Your task to perform on an android device: change your default location settings in chrome Image 0: 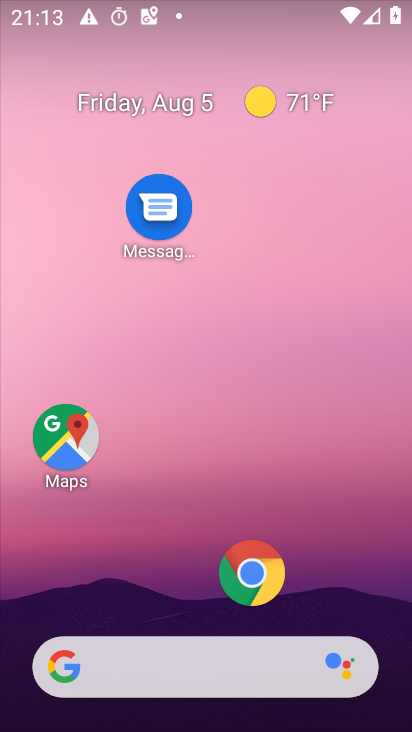
Step 0: press home button
Your task to perform on an android device: change your default location settings in chrome Image 1: 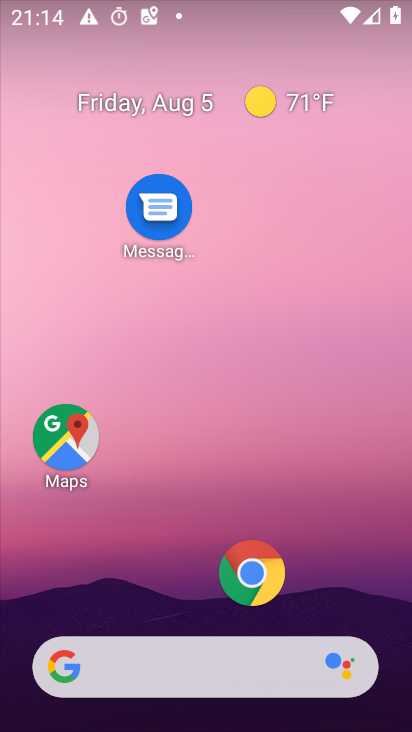
Step 1: click (248, 565)
Your task to perform on an android device: change your default location settings in chrome Image 2: 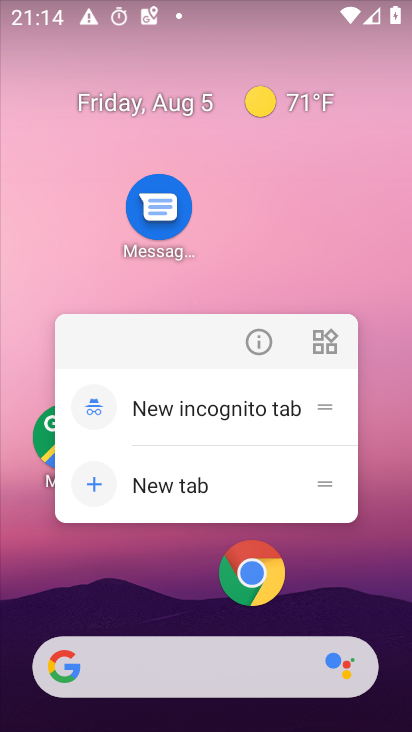
Step 2: click (248, 565)
Your task to perform on an android device: change your default location settings in chrome Image 3: 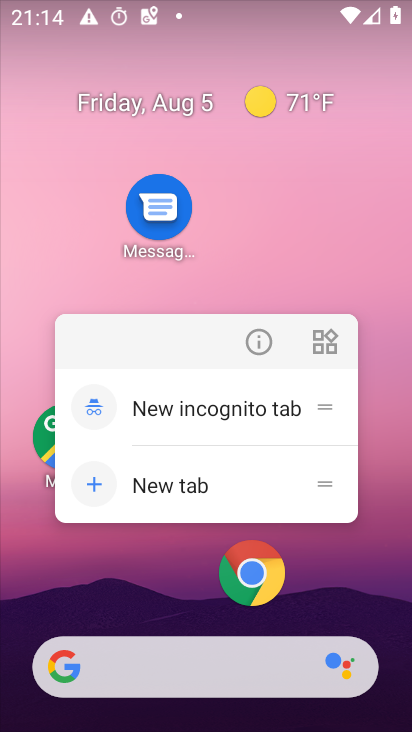
Step 3: click (358, 577)
Your task to perform on an android device: change your default location settings in chrome Image 4: 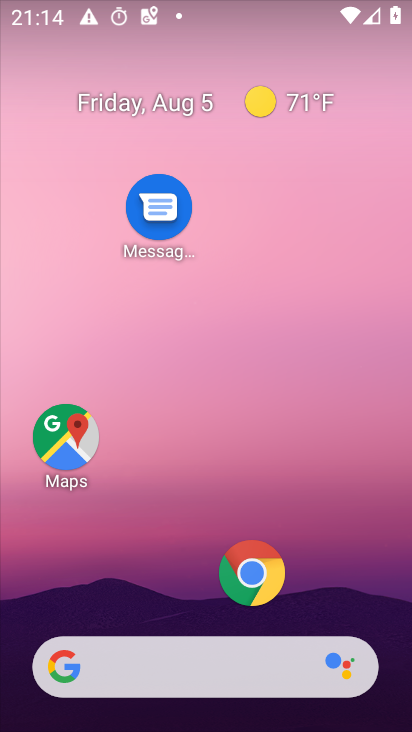
Step 4: click (245, 562)
Your task to perform on an android device: change your default location settings in chrome Image 5: 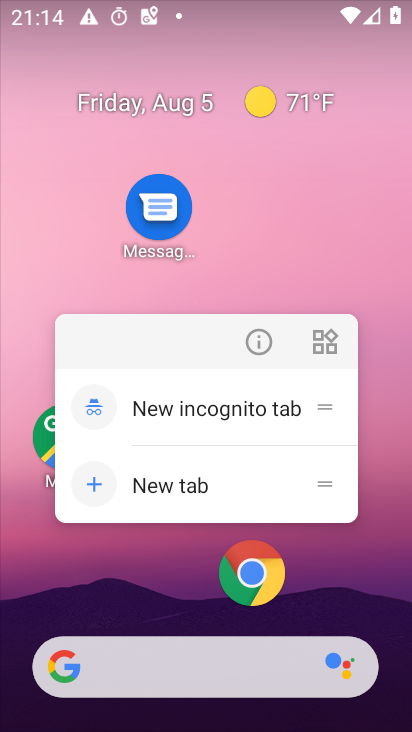
Step 5: click (249, 565)
Your task to perform on an android device: change your default location settings in chrome Image 6: 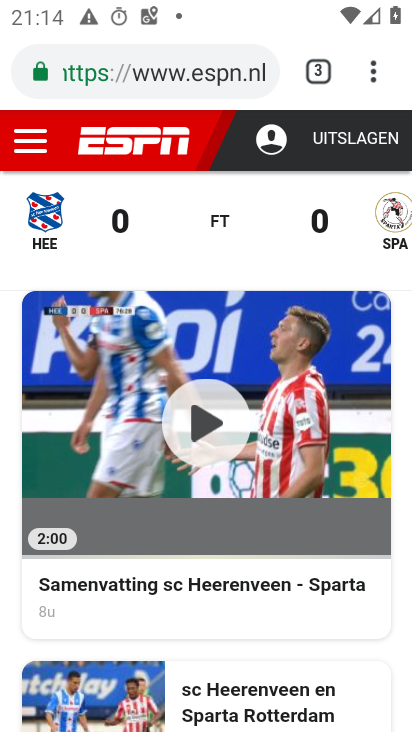
Step 6: click (370, 69)
Your task to perform on an android device: change your default location settings in chrome Image 7: 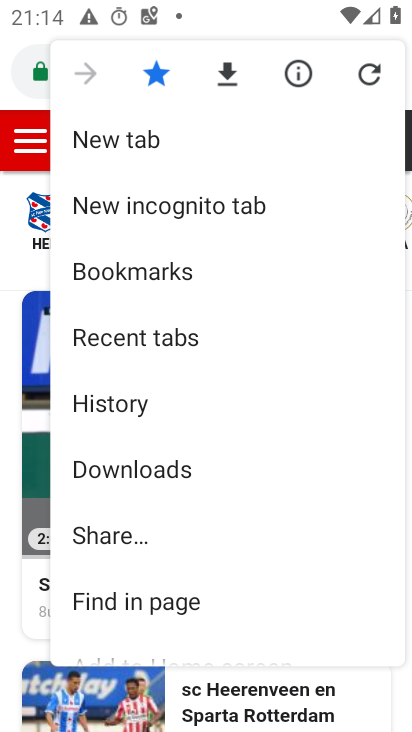
Step 7: drag from (195, 628) to (194, 82)
Your task to perform on an android device: change your default location settings in chrome Image 8: 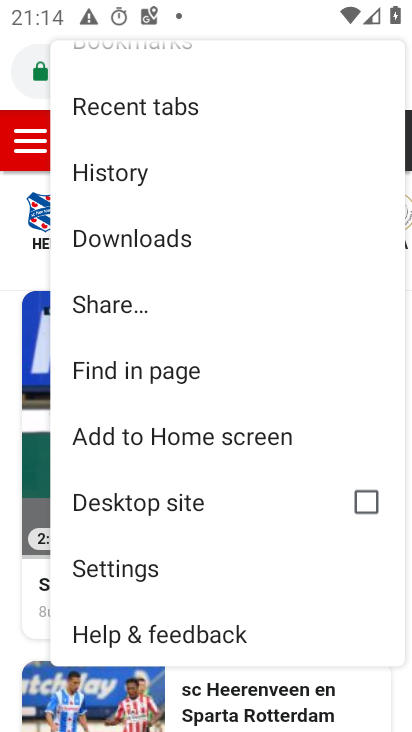
Step 8: click (166, 567)
Your task to perform on an android device: change your default location settings in chrome Image 9: 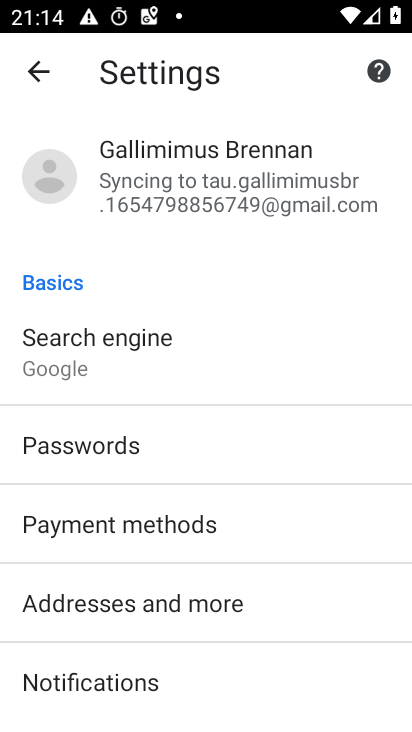
Step 9: drag from (252, 649) to (298, 149)
Your task to perform on an android device: change your default location settings in chrome Image 10: 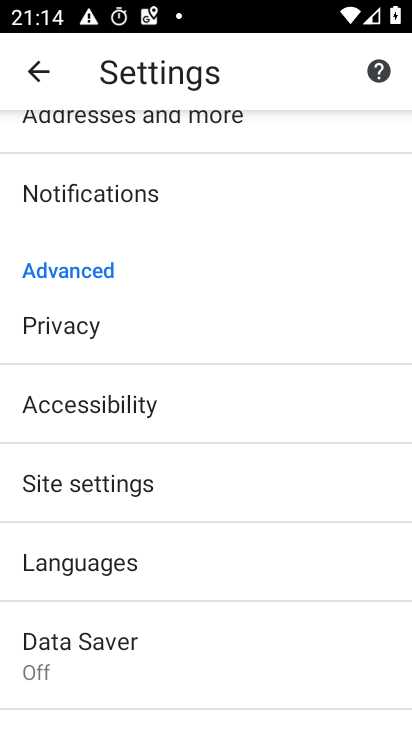
Step 10: click (181, 483)
Your task to perform on an android device: change your default location settings in chrome Image 11: 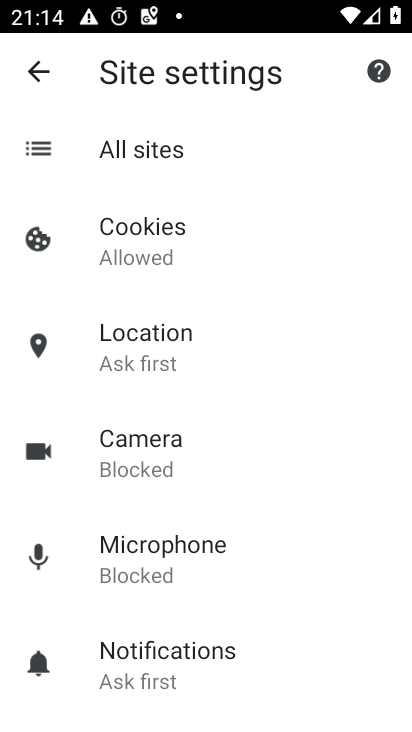
Step 11: click (201, 349)
Your task to perform on an android device: change your default location settings in chrome Image 12: 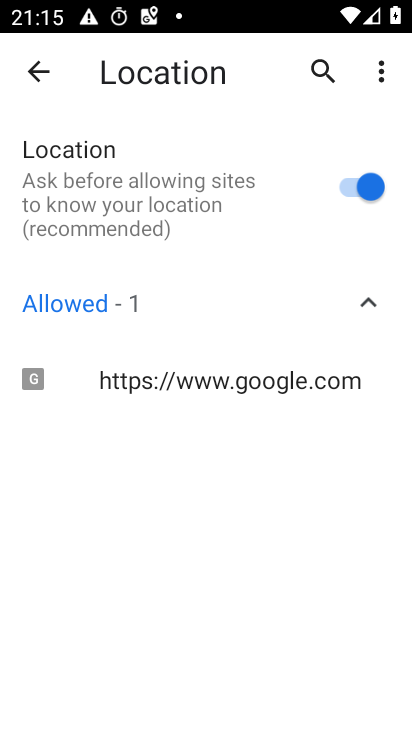
Step 12: click (348, 182)
Your task to perform on an android device: change your default location settings in chrome Image 13: 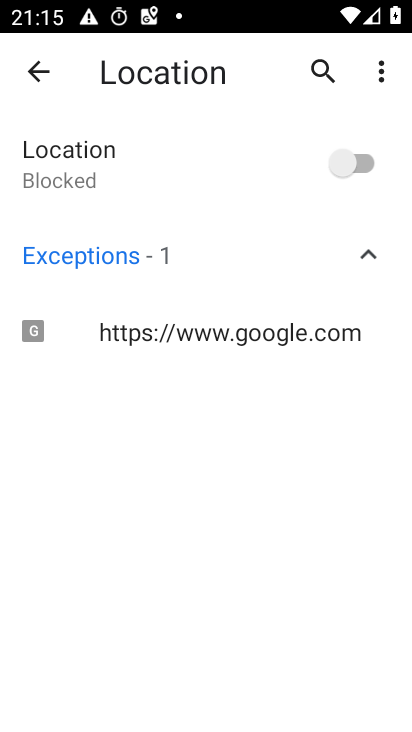
Step 13: task complete